Your task to perform on an android device: Set the phone to "Do not disturb". Image 0: 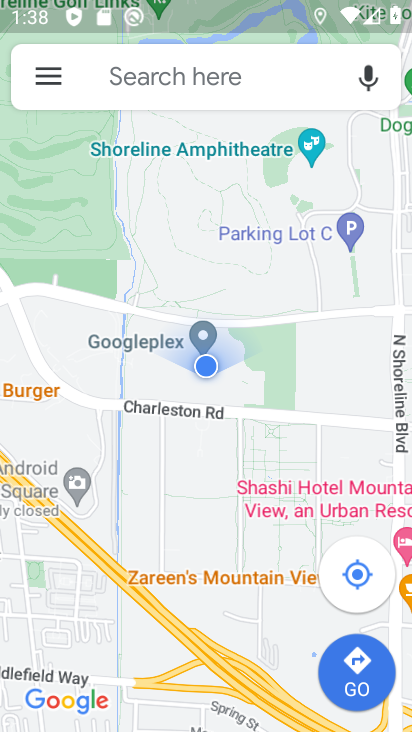
Step 0: click (116, 228)
Your task to perform on an android device: Set the phone to "Do not disturb". Image 1: 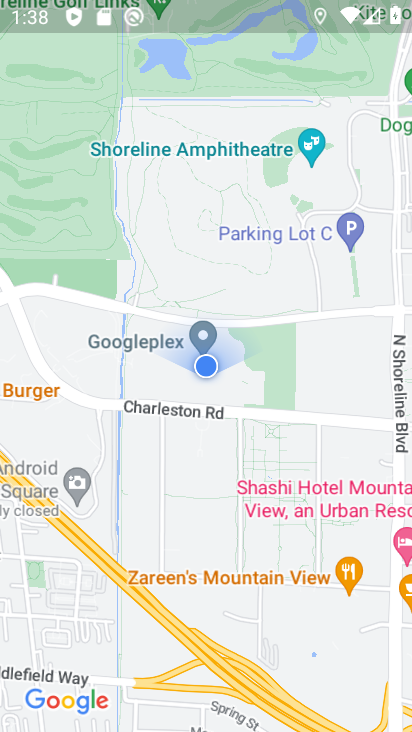
Step 1: click (223, 151)
Your task to perform on an android device: Set the phone to "Do not disturb". Image 2: 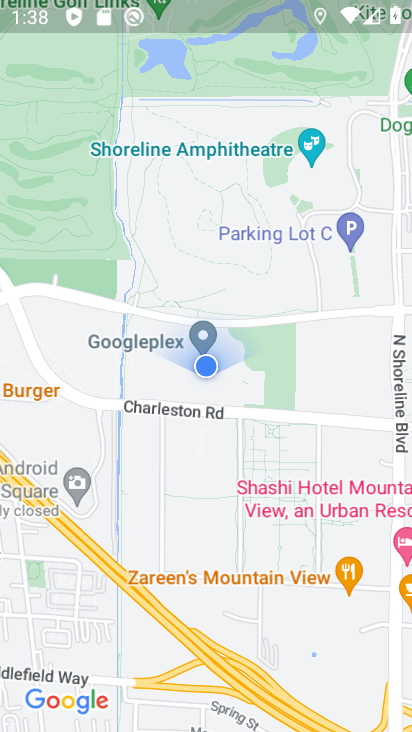
Step 2: click (238, 512)
Your task to perform on an android device: Set the phone to "Do not disturb". Image 3: 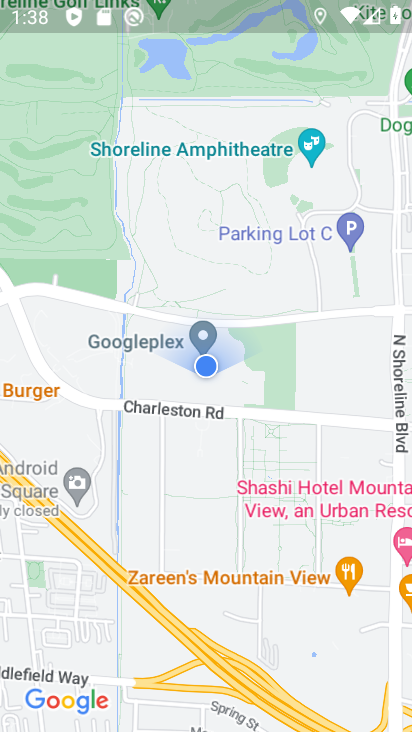
Step 3: drag from (314, 645) to (261, 156)
Your task to perform on an android device: Set the phone to "Do not disturb". Image 4: 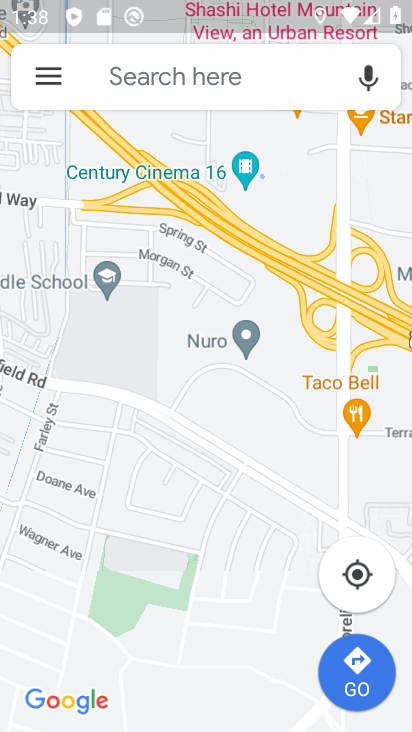
Step 4: press home button
Your task to perform on an android device: Set the phone to "Do not disturb". Image 5: 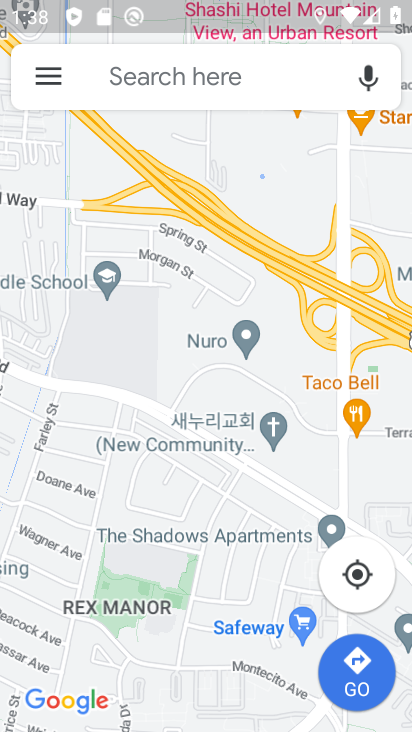
Step 5: press home button
Your task to perform on an android device: Set the phone to "Do not disturb". Image 6: 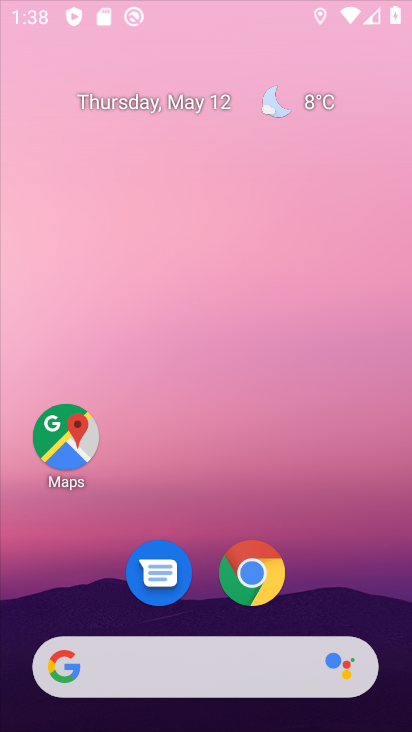
Step 6: press home button
Your task to perform on an android device: Set the phone to "Do not disturb". Image 7: 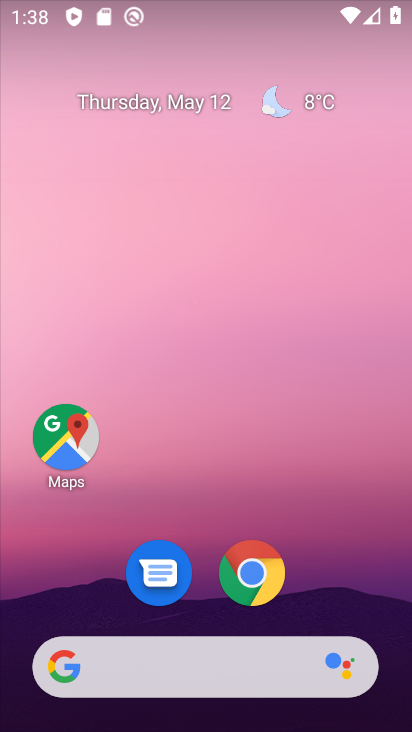
Step 7: press home button
Your task to perform on an android device: Set the phone to "Do not disturb". Image 8: 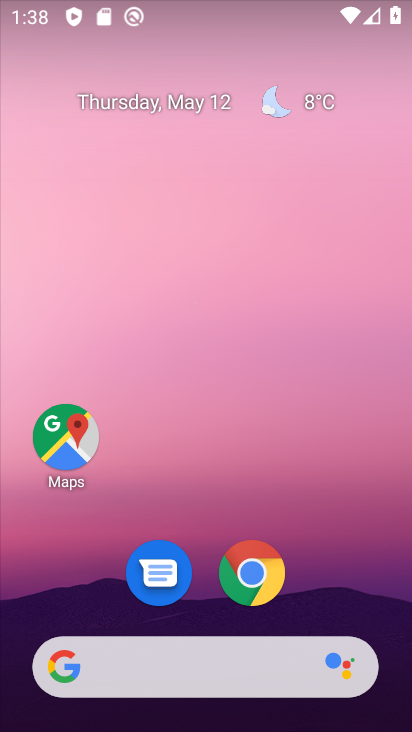
Step 8: press home button
Your task to perform on an android device: Set the phone to "Do not disturb". Image 9: 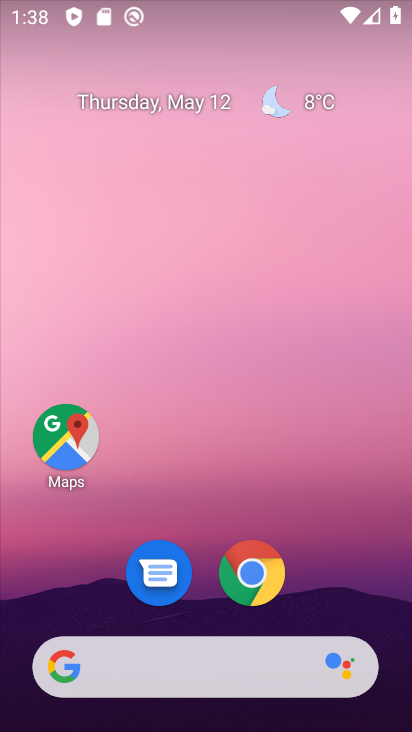
Step 9: click (179, 9)
Your task to perform on an android device: Set the phone to "Do not disturb". Image 10: 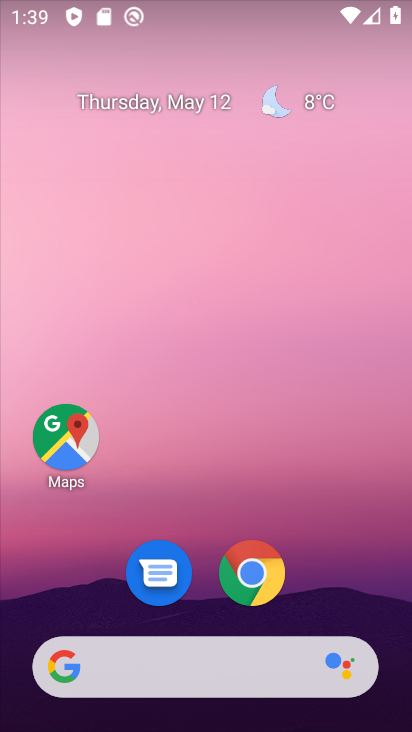
Step 10: drag from (354, 624) to (188, 128)
Your task to perform on an android device: Set the phone to "Do not disturb". Image 11: 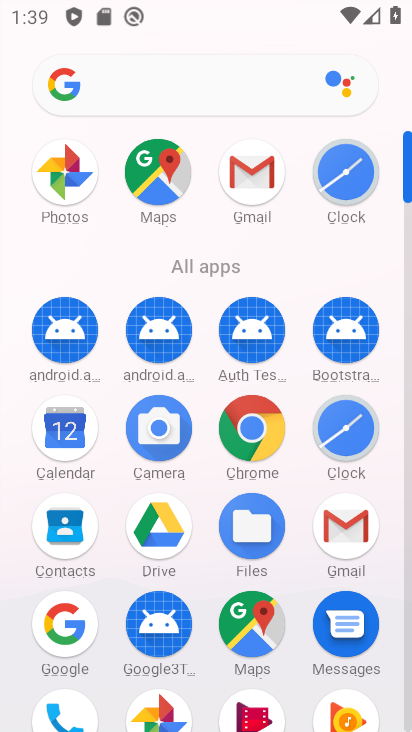
Step 11: drag from (275, 478) to (250, 200)
Your task to perform on an android device: Set the phone to "Do not disturb". Image 12: 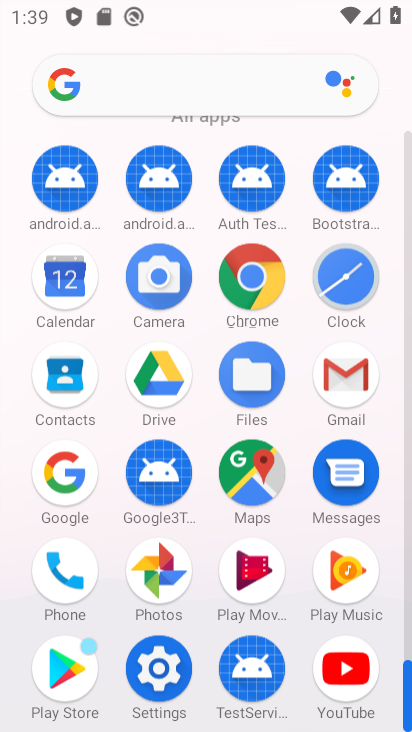
Step 12: drag from (265, 423) to (262, 189)
Your task to perform on an android device: Set the phone to "Do not disturb". Image 13: 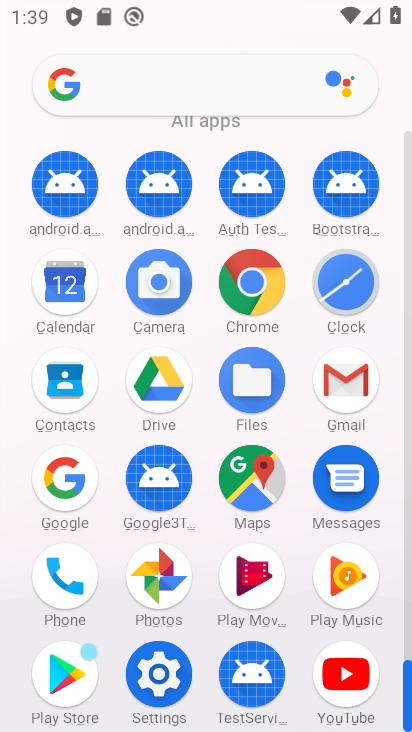
Step 13: drag from (294, 383) to (271, 260)
Your task to perform on an android device: Set the phone to "Do not disturb". Image 14: 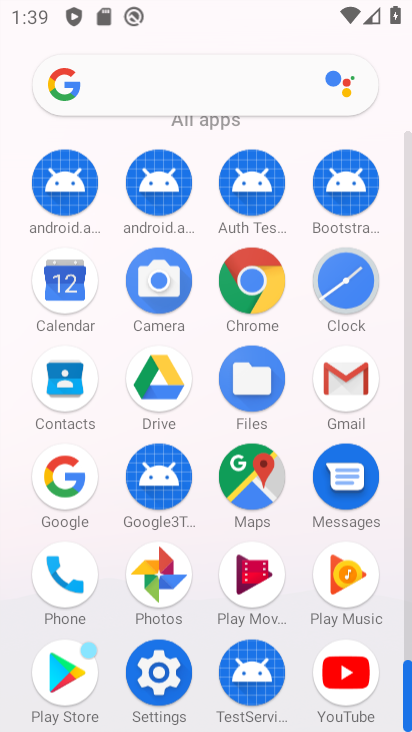
Step 14: drag from (278, 407) to (258, 170)
Your task to perform on an android device: Set the phone to "Do not disturb". Image 15: 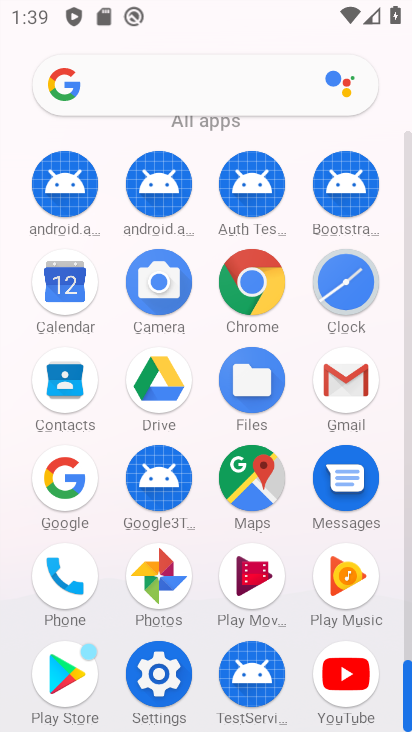
Step 15: drag from (208, 531) to (152, 155)
Your task to perform on an android device: Set the phone to "Do not disturb". Image 16: 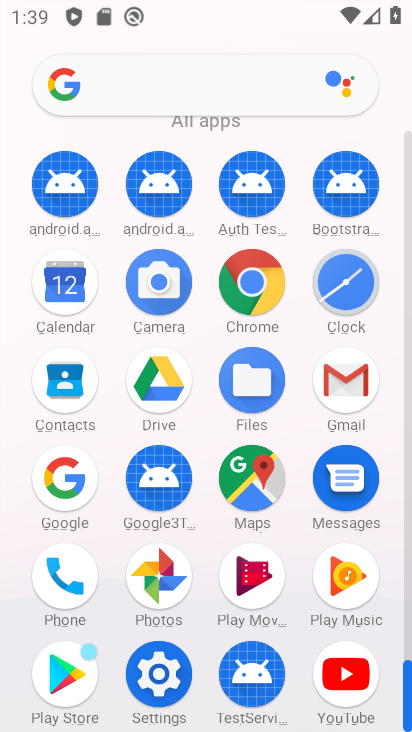
Step 16: drag from (159, 526) to (166, 206)
Your task to perform on an android device: Set the phone to "Do not disturb". Image 17: 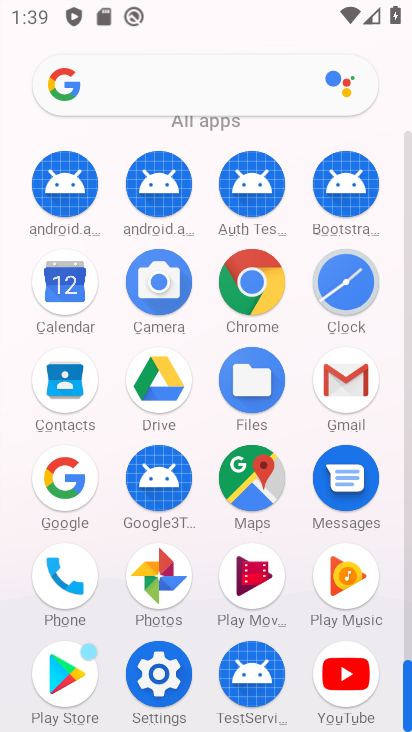
Step 17: drag from (182, 452) to (133, 120)
Your task to perform on an android device: Set the phone to "Do not disturb". Image 18: 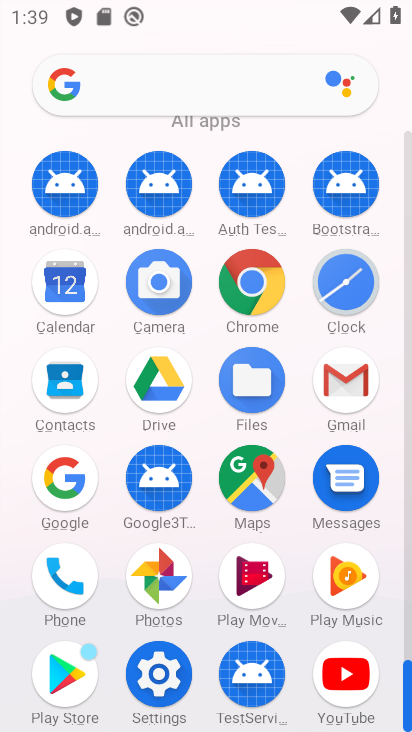
Step 18: click (163, 682)
Your task to perform on an android device: Set the phone to "Do not disturb". Image 19: 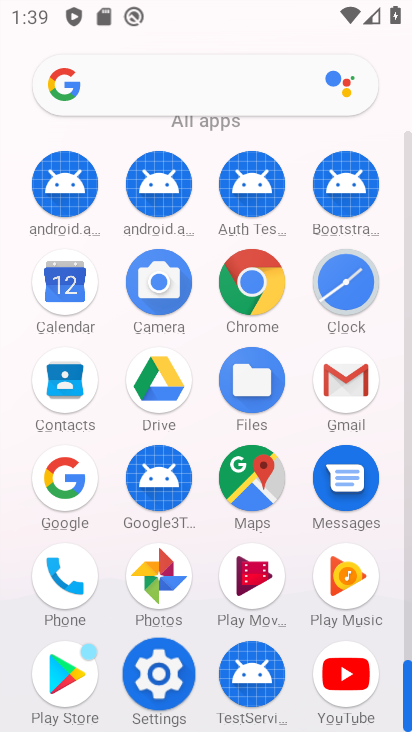
Step 19: click (158, 674)
Your task to perform on an android device: Set the phone to "Do not disturb". Image 20: 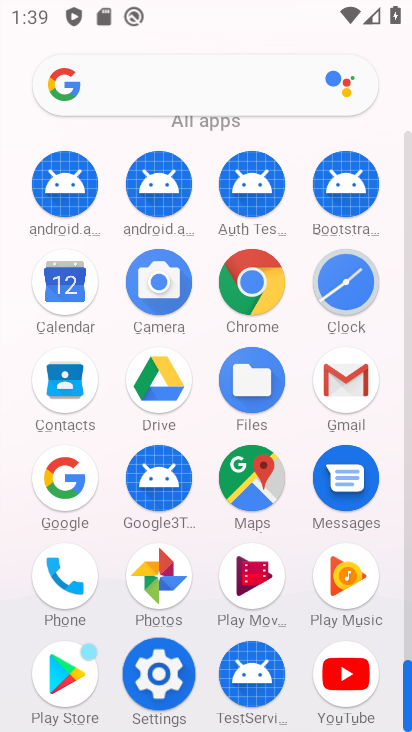
Step 20: click (157, 673)
Your task to perform on an android device: Set the phone to "Do not disturb". Image 21: 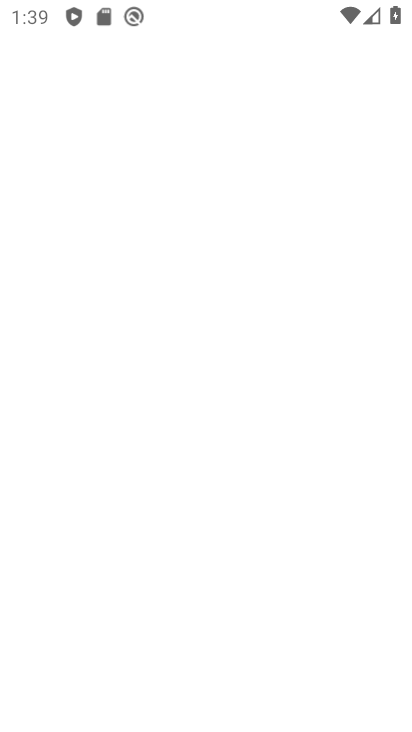
Step 21: click (153, 674)
Your task to perform on an android device: Set the phone to "Do not disturb". Image 22: 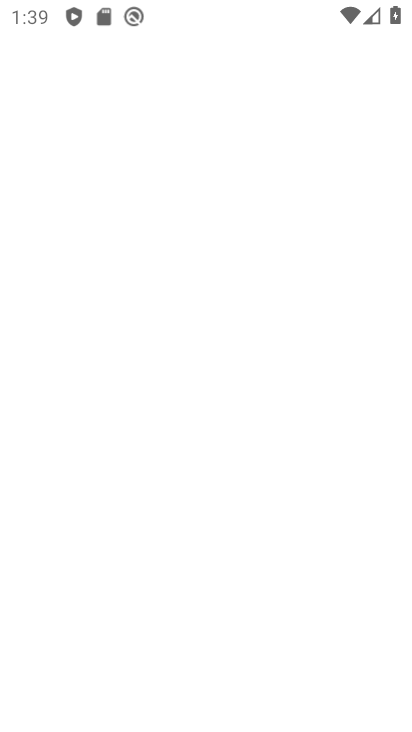
Step 22: click (152, 673)
Your task to perform on an android device: Set the phone to "Do not disturb". Image 23: 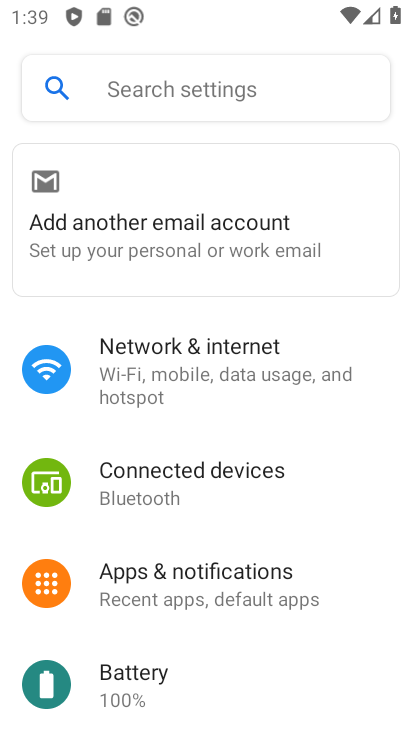
Step 23: drag from (219, 543) to (154, 258)
Your task to perform on an android device: Set the phone to "Do not disturb". Image 24: 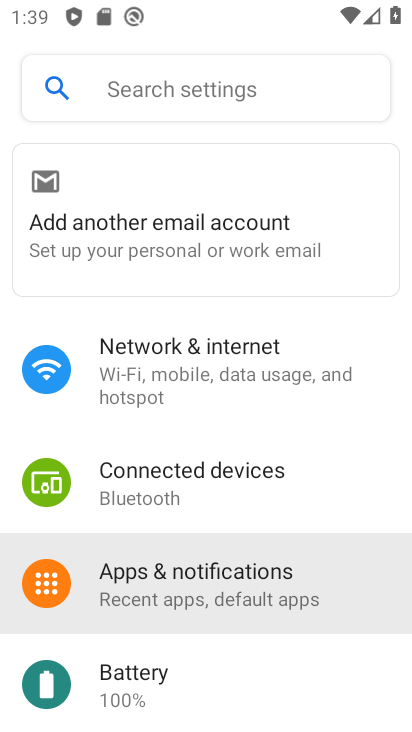
Step 24: drag from (168, 448) to (152, 294)
Your task to perform on an android device: Set the phone to "Do not disturb". Image 25: 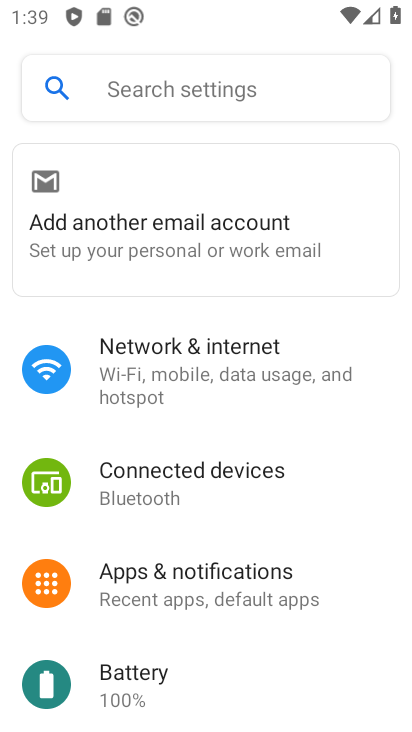
Step 25: drag from (201, 509) to (201, 304)
Your task to perform on an android device: Set the phone to "Do not disturb". Image 26: 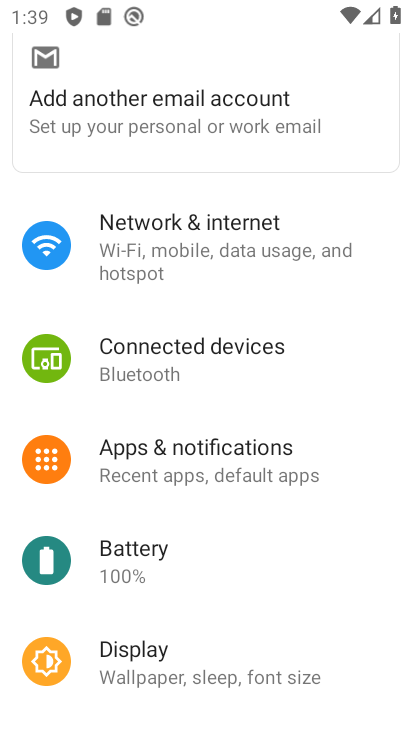
Step 26: drag from (226, 525) to (215, 279)
Your task to perform on an android device: Set the phone to "Do not disturb". Image 27: 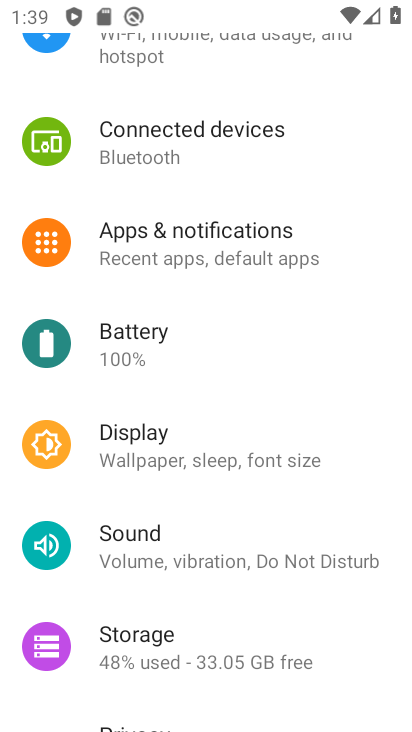
Step 27: drag from (210, 547) to (193, 122)
Your task to perform on an android device: Set the phone to "Do not disturb". Image 28: 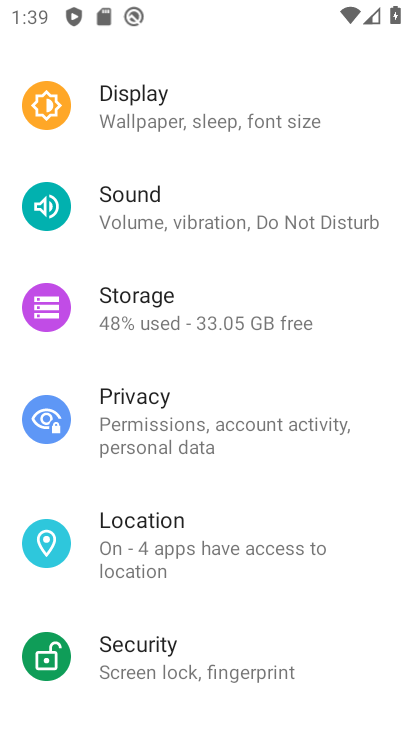
Step 28: click (136, 116)
Your task to perform on an android device: Set the phone to "Do not disturb". Image 29: 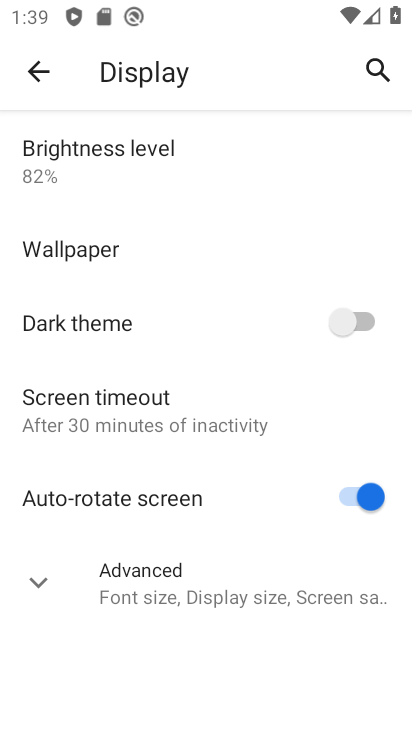
Step 29: drag from (166, 513) to (75, 8)
Your task to perform on an android device: Set the phone to "Do not disturb". Image 30: 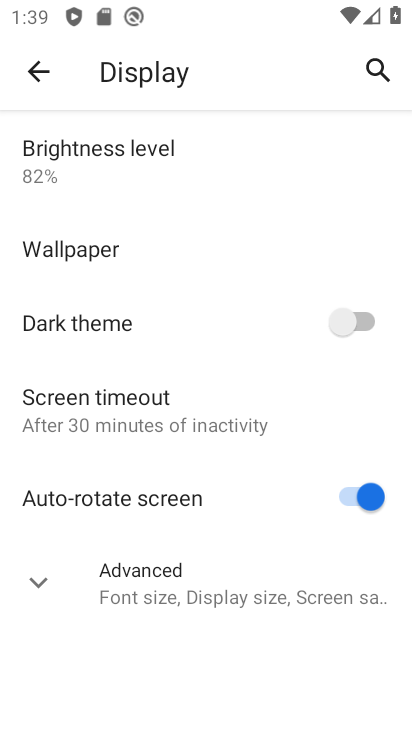
Step 30: click (29, 67)
Your task to perform on an android device: Set the phone to "Do not disturb". Image 31: 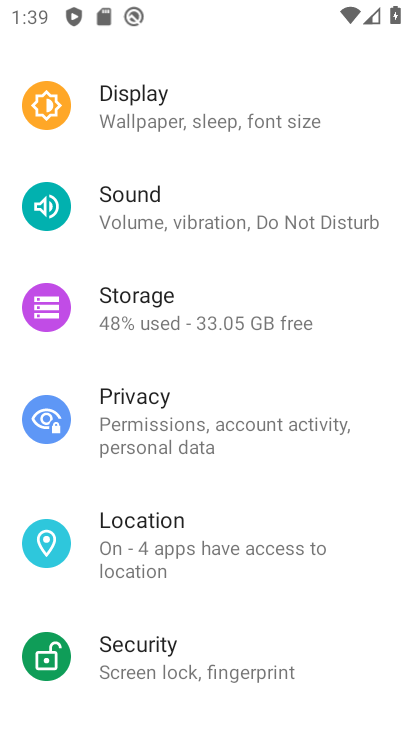
Step 31: click (138, 229)
Your task to perform on an android device: Set the phone to "Do not disturb". Image 32: 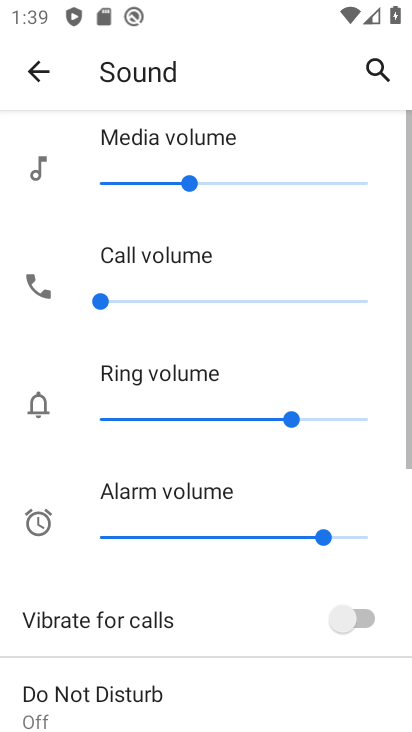
Step 32: drag from (205, 398) to (154, 170)
Your task to perform on an android device: Set the phone to "Do not disturb". Image 33: 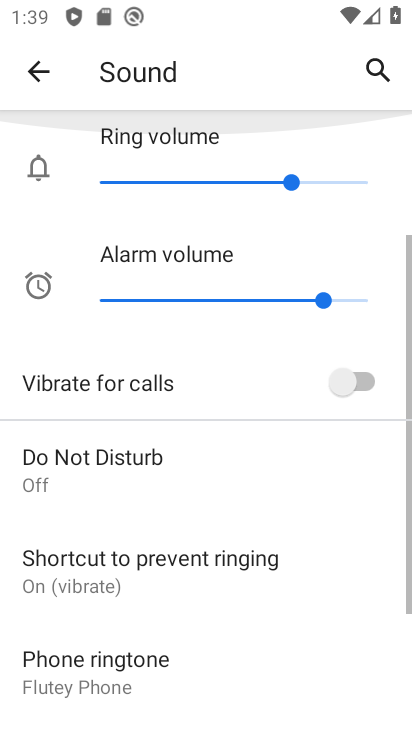
Step 33: drag from (166, 448) to (165, 26)
Your task to perform on an android device: Set the phone to "Do not disturb". Image 34: 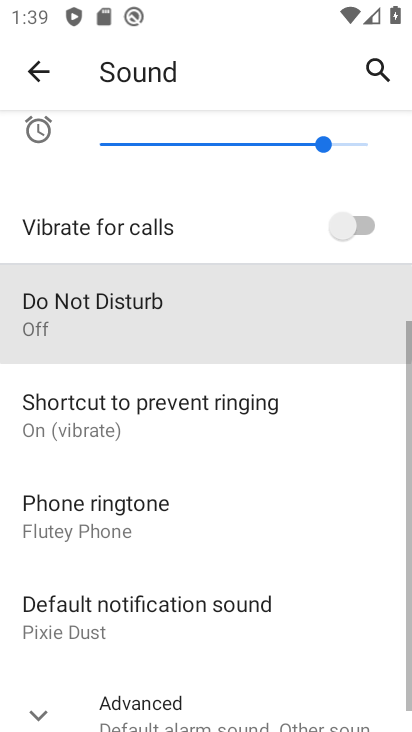
Step 34: drag from (234, 408) to (195, 153)
Your task to perform on an android device: Set the phone to "Do not disturb". Image 35: 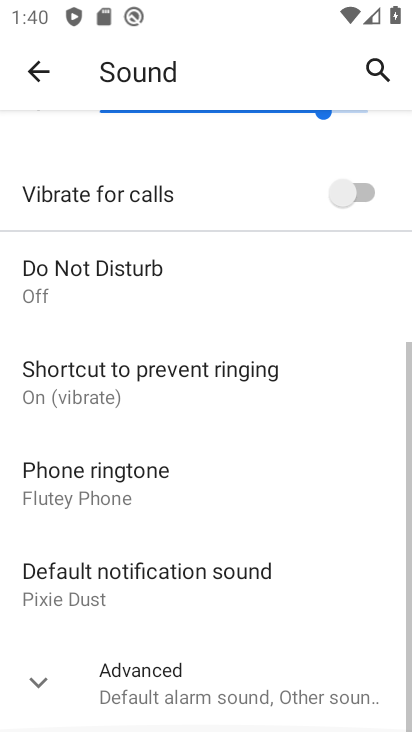
Step 35: drag from (104, 395) to (66, 134)
Your task to perform on an android device: Set the phone to "Do not disturb". Image 36: 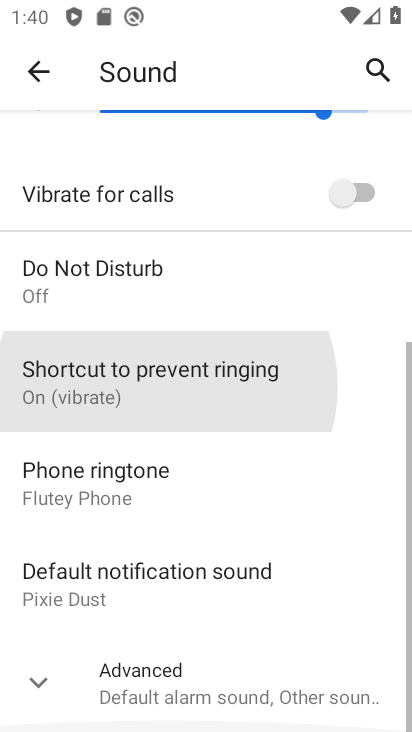
Step 36: drag from (107, 434) to (78, 198)
Your task to perform on an android device: Set the phone to "Do not disturb". Image 37: 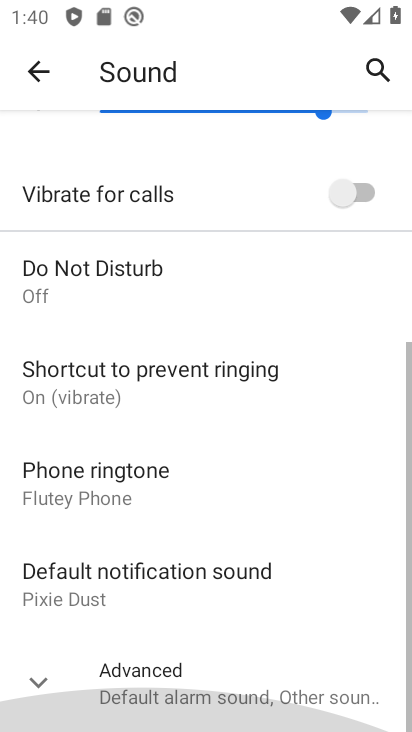
Step 37: drag from (162, 567) to (92, 71)
Your task to perform on an android device: Set the phone to "Do not disturb". Image 38: 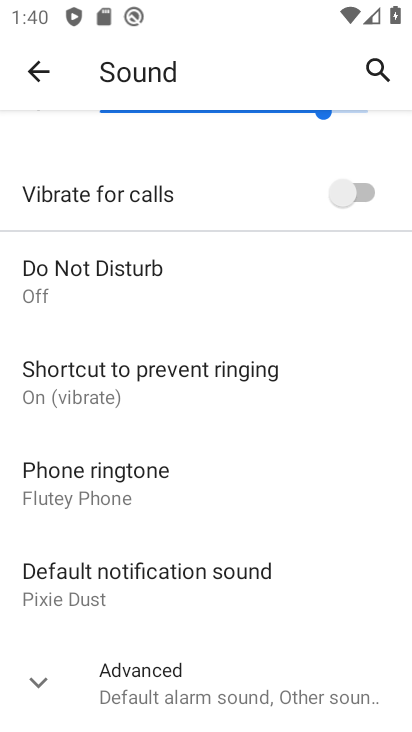
Step 38: click (76, 266)
Your task to perform on an android device: Set the phone to "Do not disturb". Image 39: 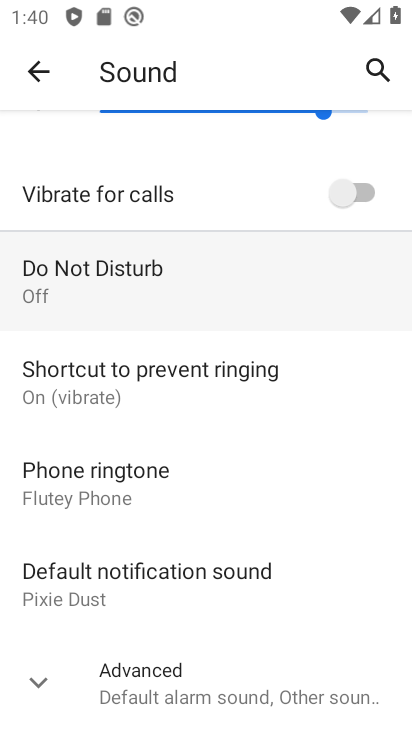
Step 39: click (77, 265)
Your task to perform on an android device: Set the phone to "Do not disturb". Image 40: 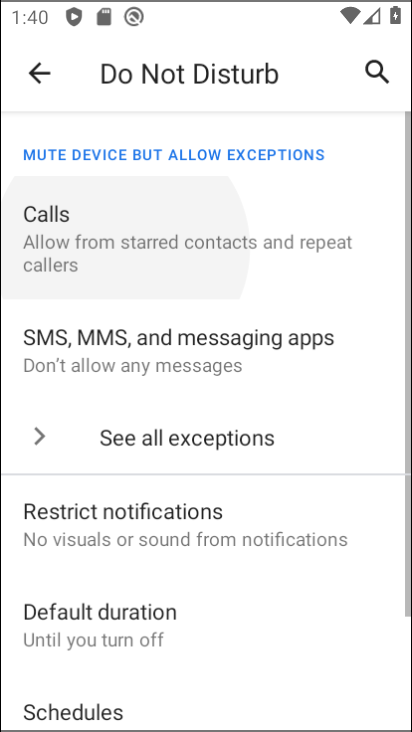
Step 40: click (77, 266)
Your task to perform on an android device: Set the phone to "Do not disturb". Image 41: 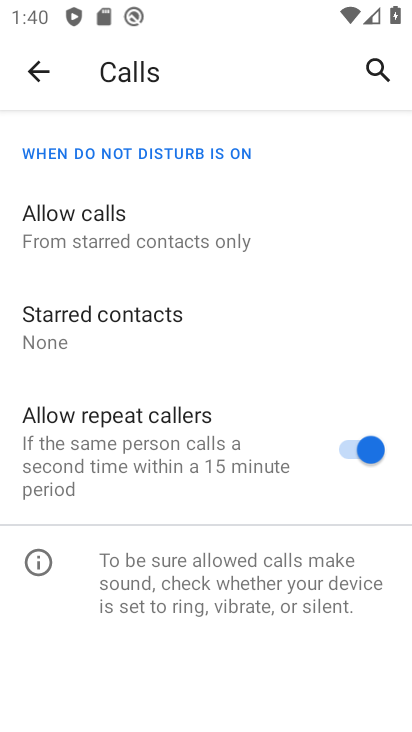
Step 41: click (33, 58)
Your task to perform on an android device: Set the phone to "Do not disturb". Image 42: 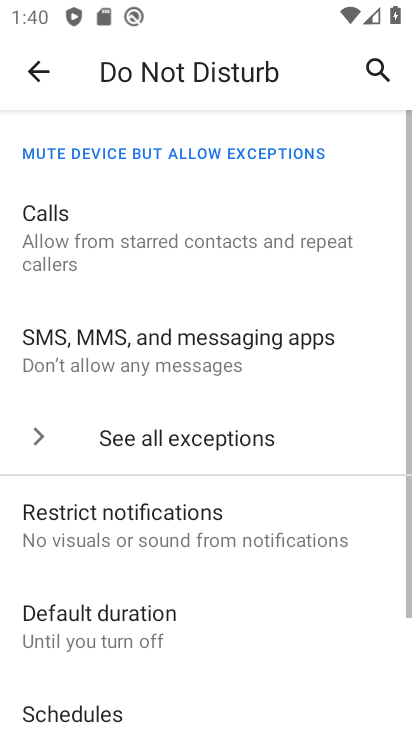
Step 42: drag from (159, 495) to (76, 1)
Your task to perform on an android device: Set the phone to "Do not disturb". Image 43: 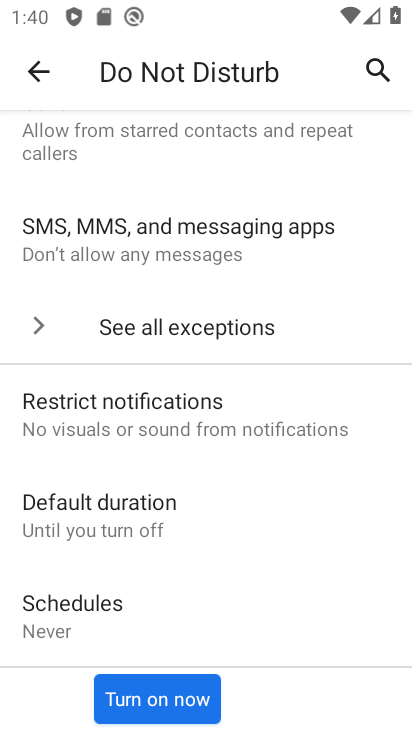
Step 43: click (157, 692)
Your task to perform on an android device: Set the phone to "Do not disturb". Image 44: 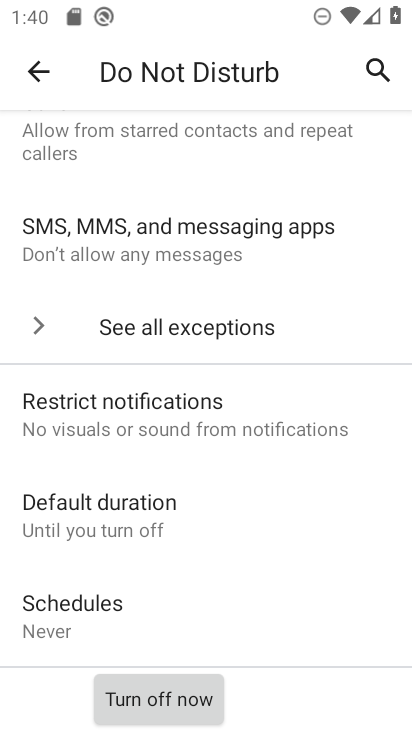
Step 44: task complete